Your task to perform on an android device: Go to Yahoo.com Image 0: 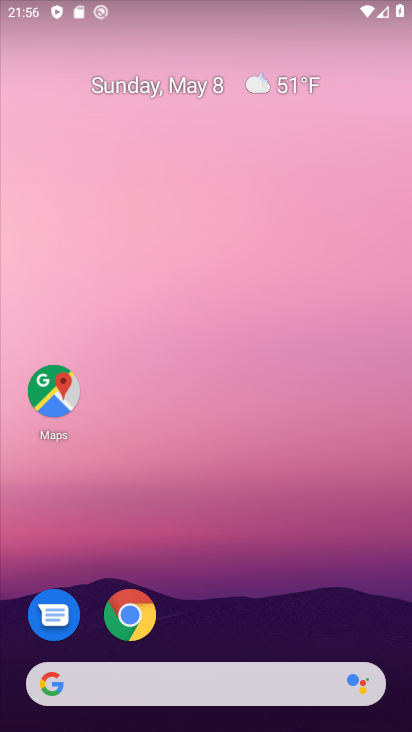
Step 0: drag from (297, 592) to (215, 64)
Your task to perform on an android device: Go to Yahoo.com Image 1: 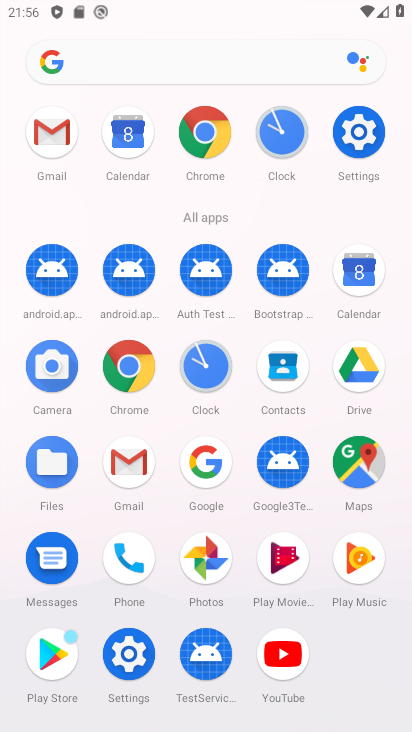
Step 1: click (130, 377)
Your task to perform on an android device: Go to Yahoo.com Image 2: 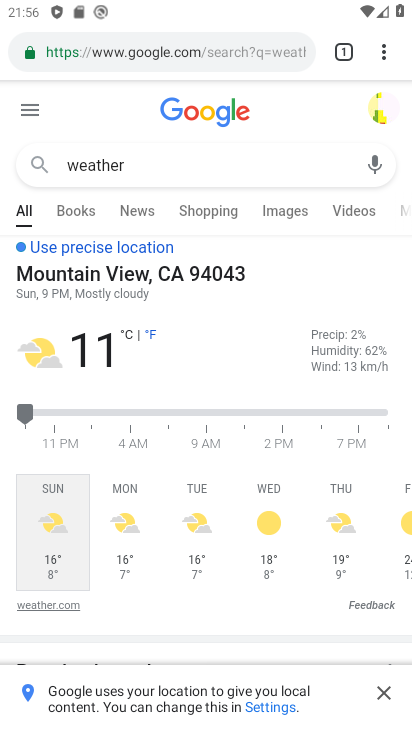
Step 2: click (214, 49)
Your task to perform on an android device: Go to Yahoo.com Image 3: 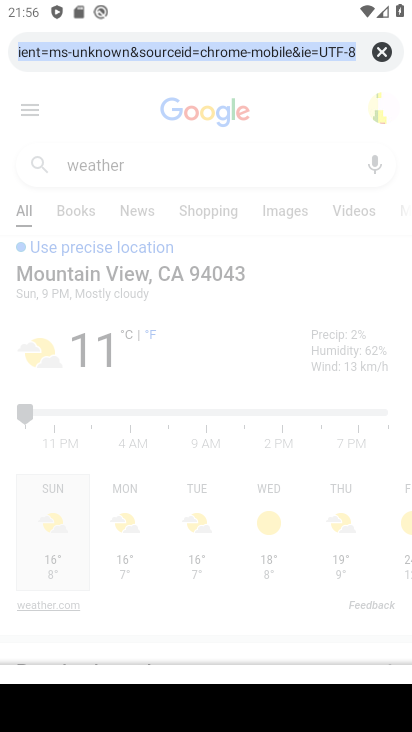
Step 3: type "yahoo"
Your task to perform on an android device: Go to Yahoo.com Image 4: 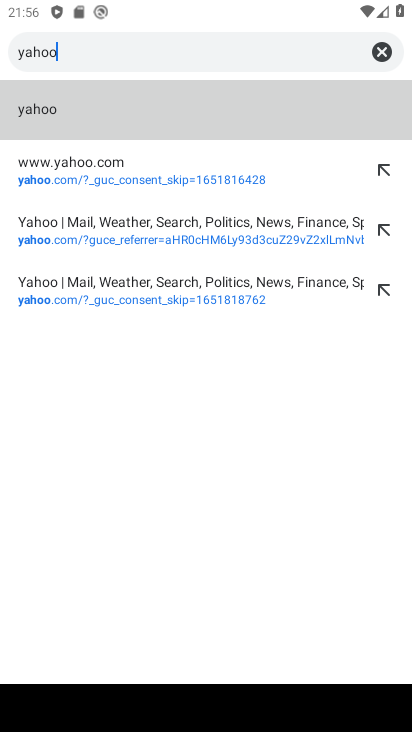
Step 4: click (197, 161)
Your task to perform on an android device: Go to Yahoo.com Image 5: 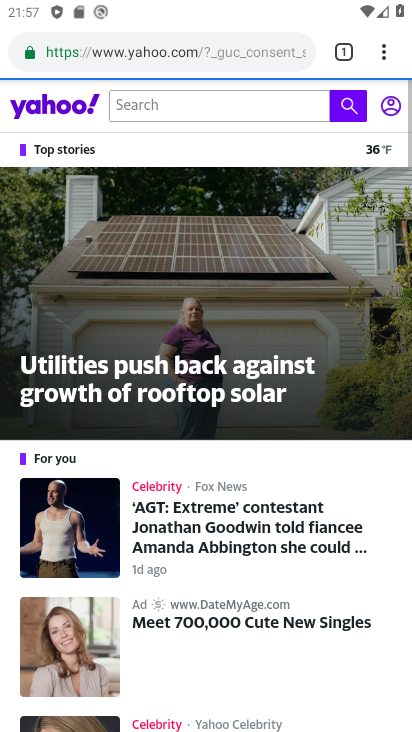
Step 5: task complete